Your task to perform on an android device: Search for Mexican restaurants on Maps Image 0: 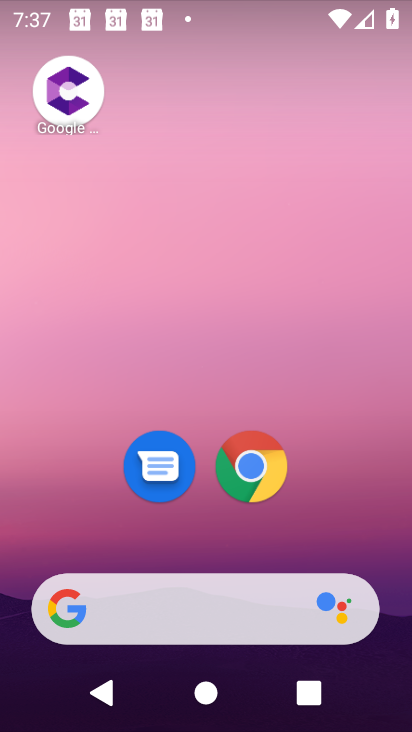
Step 0: drag from (337, 505) to (342, 166)
Your task to perform on an android device: Search for Mexican restaurants on Maps Image 1: 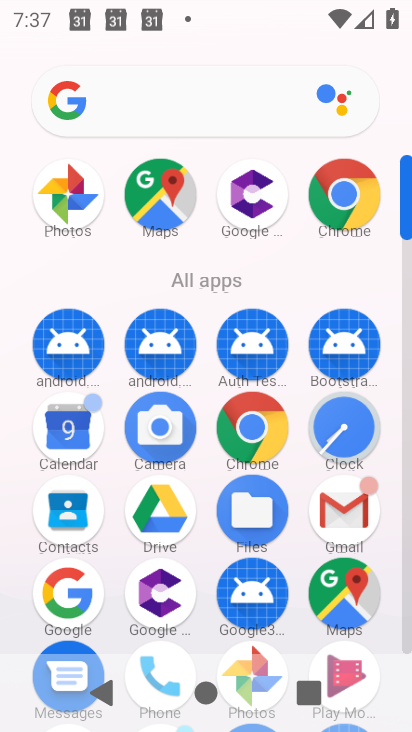
Step 1: click (370, 577)
Your task to perform on an android device: Search for Mexican restaurants on Maps Image 2: 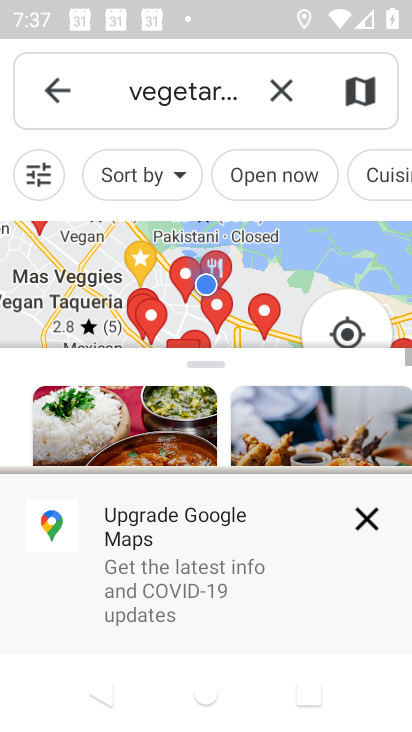
Step 2: click (283, 92)
Your task to perform on an android device: Search for Mexican restaurants on Maps Image 3: 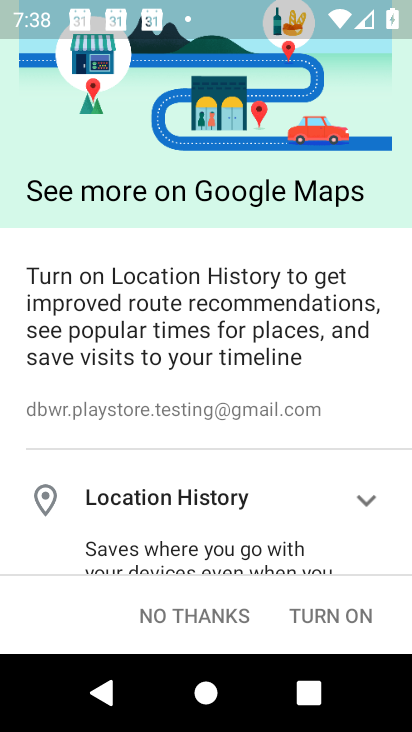
Step 3: press back button
Your task to perform on an android device: Search for Mexican restaurants on Maps Image 4: 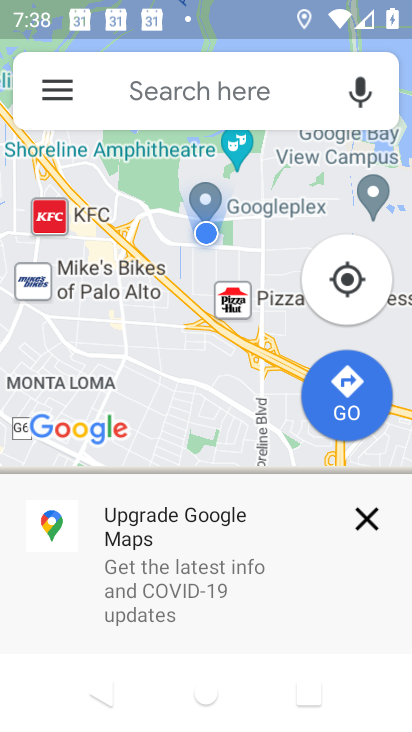
Step 4: click (201, 71)
Your task to perform on an android device: Search for Mexican restaurants on Maps Image 5: 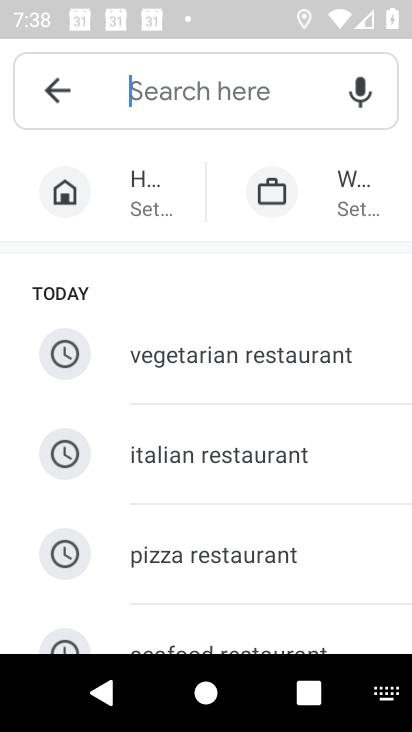
Step 5: click (176, 86)
Your task to perform on an android device: Search for Mexican restaurants on Maps Image 6: 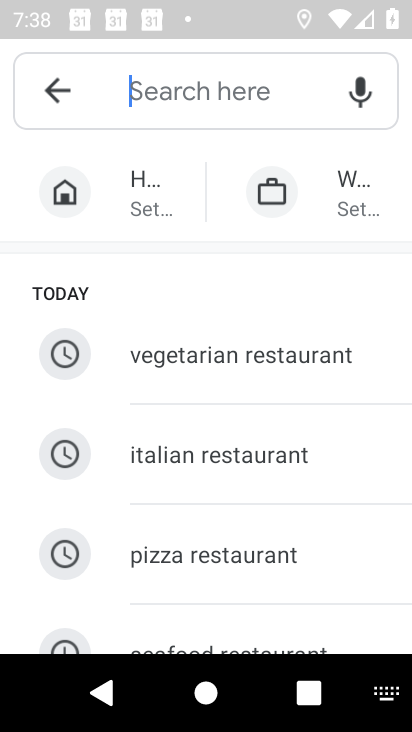
Step 6: type "Mexican restaurants"
Your task to perform on an android device: Search for Mexican restaurants on Maps Image 7: 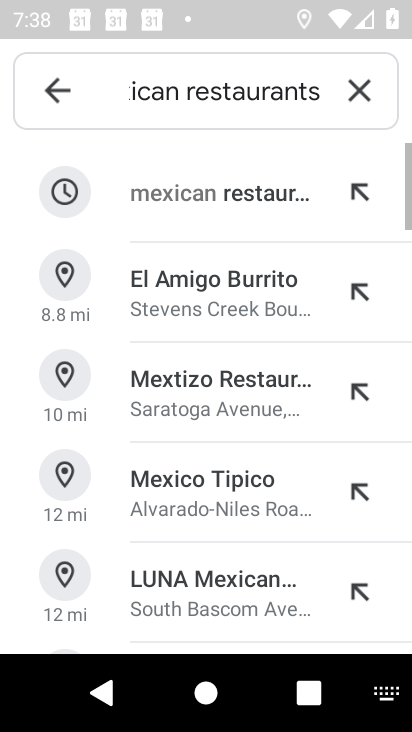
Step 7: click (228, 176)
Your task to perform on an android device: Search for Mexican restaurants on Maps Image 8: 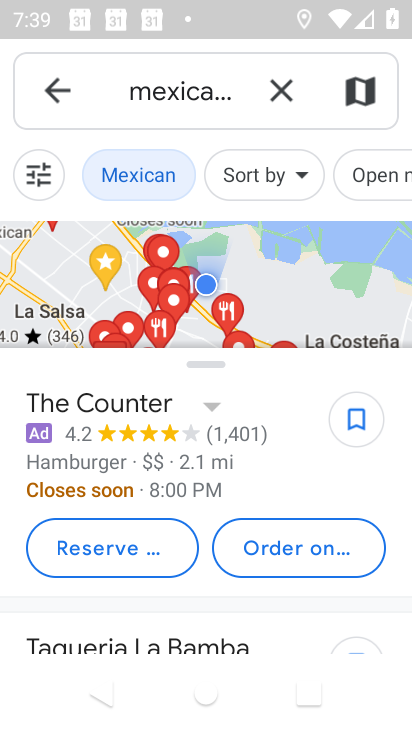
Step 8: task complete